Your task to perform on an android device: change the clock style Image 0: 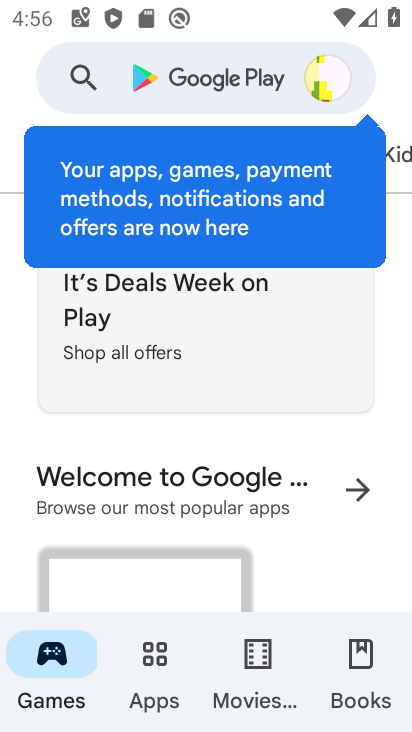
Step 0: press home button
Your task to perform on an android device: change the clock style Image 1: 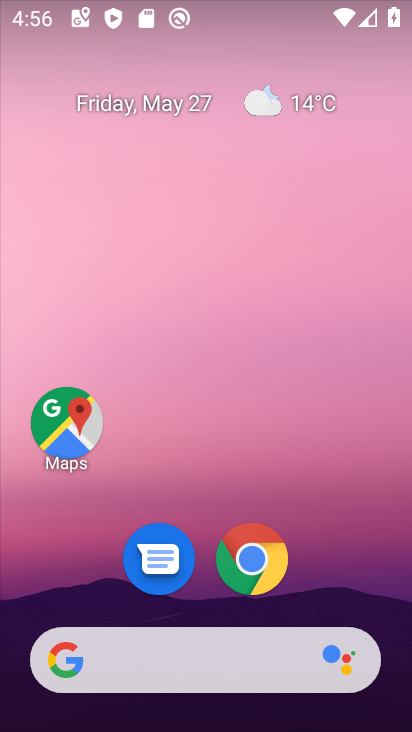
Step 1: drag from (315, 559) to (279, 158)
Your task to perform on an android device: change the clock style Image 2: 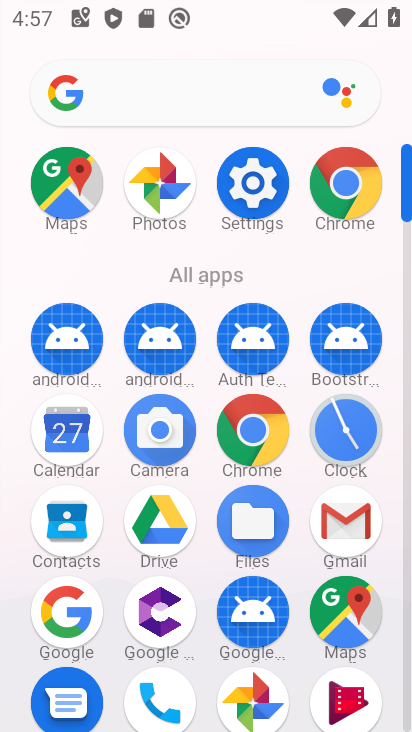
Step 2: click (350, 415)
Your task to perform on an android device: change the clock style Image 3: 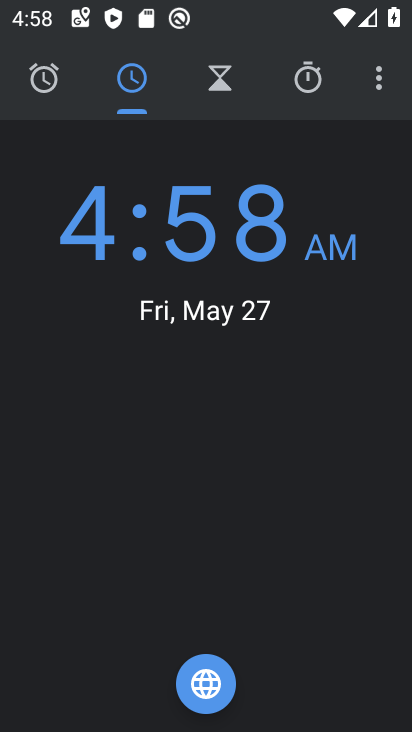
Step 3: click (374, 72)
Your task to perform on an android device: change the clock style Image 4: 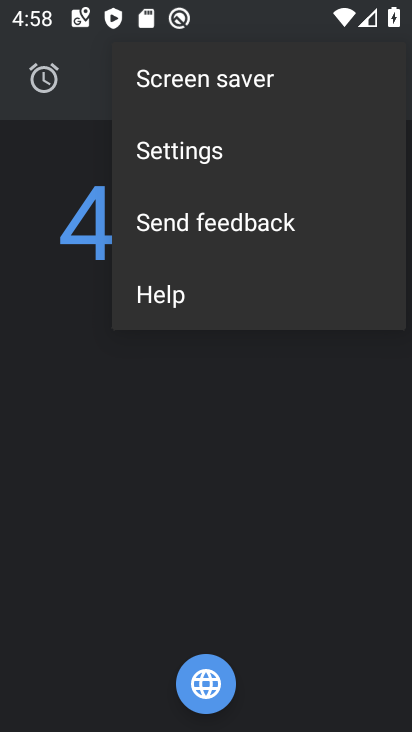
Step 4: click (181, 145)
Your task to perform on an android device: change the clock style Image 5: 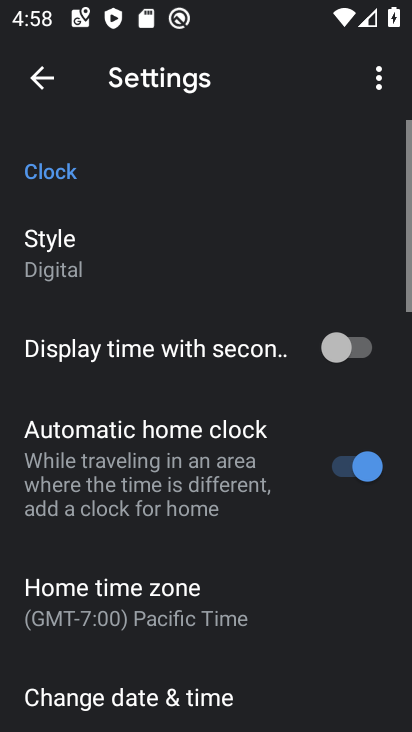
Step 5: click (37, 253)
Your task to perform on an android device: change the clock style Image 6: 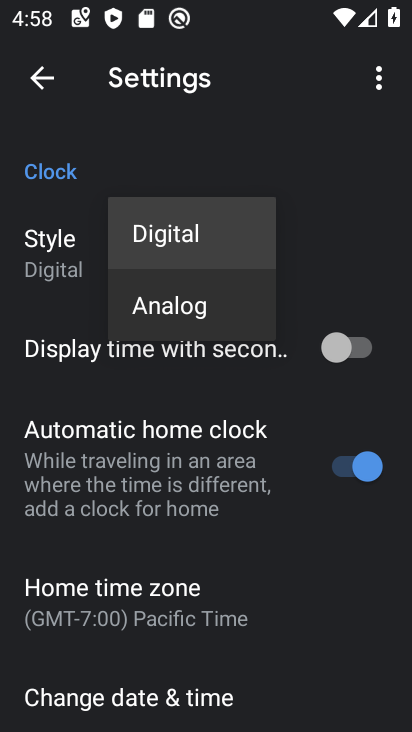
Step 6: click (156, 312)
Your task to perform on an android device: change the clock style Image 7: 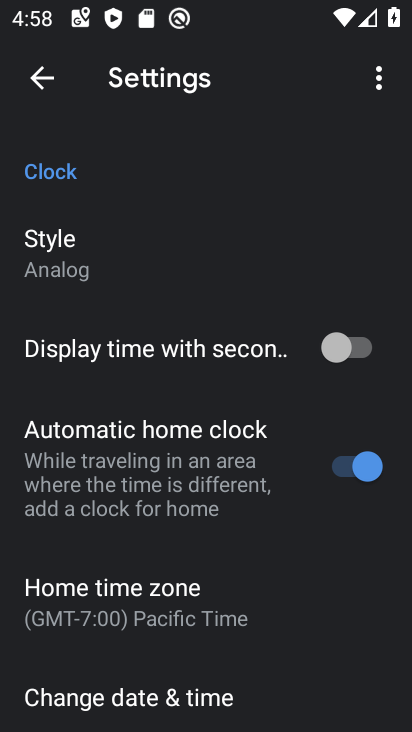
Step 7: task complete